Your task to perform on an android device: change alarm snooze length Image 0: 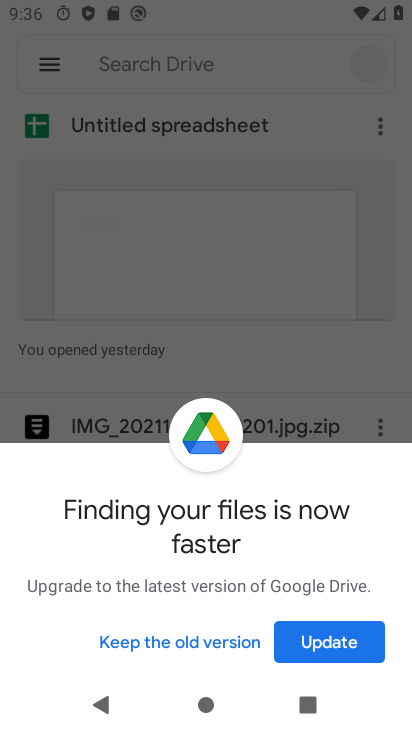
Step 0: press home button
Your task to perform on an android device: change alarm snooze length Image 1: 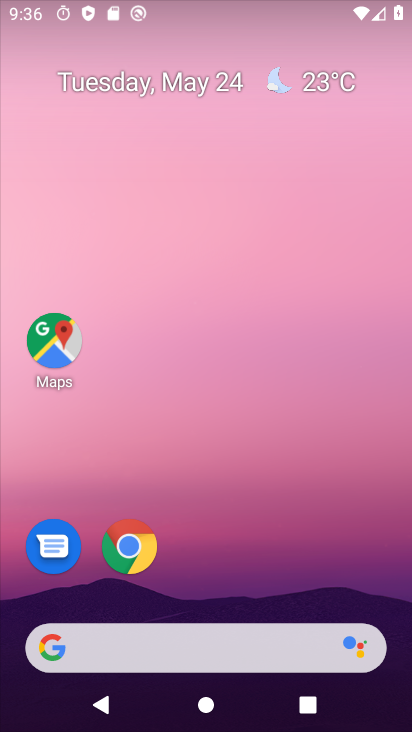
Step 1: drag from (220, 515) to (244, 79)
Your task to perform on an android device: change alarm snooze length Image 2: 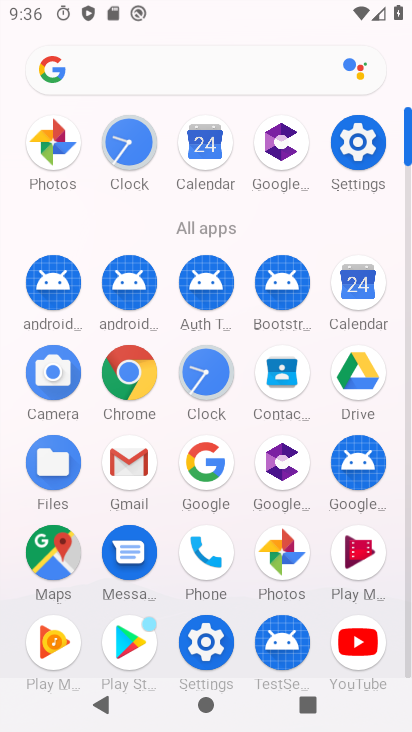
Step 2: click (205, 374)
Your task to perform on an android device: change alarm snooze length Image 3: 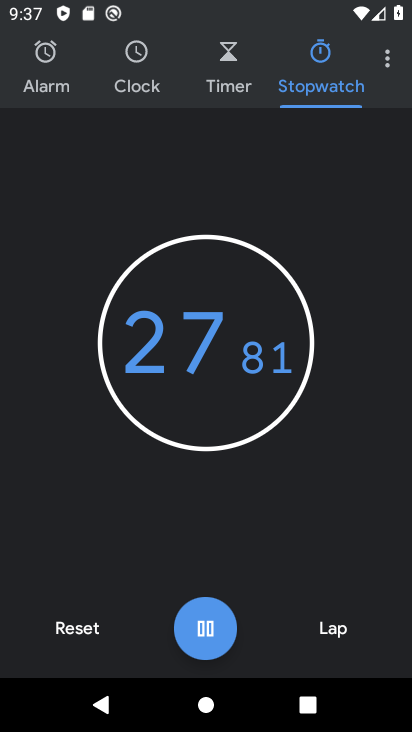
Step 3: click (382, 58)
Your task to perform on an android device: change alarm snooze length Image 4: 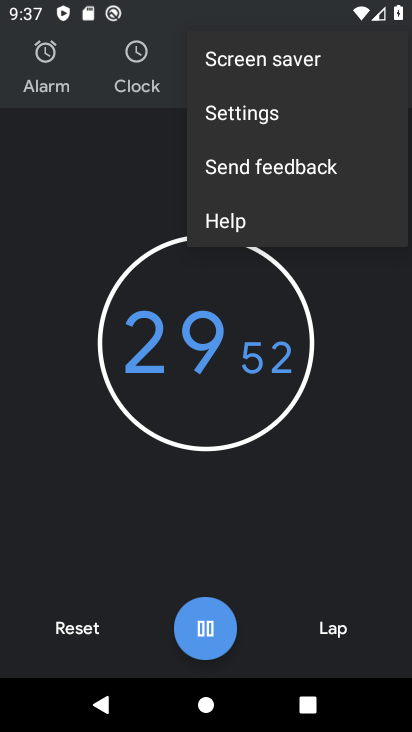
Step 4: click (282, 119)
Your task to perform on an android device: change alarm snooze length Image 5: 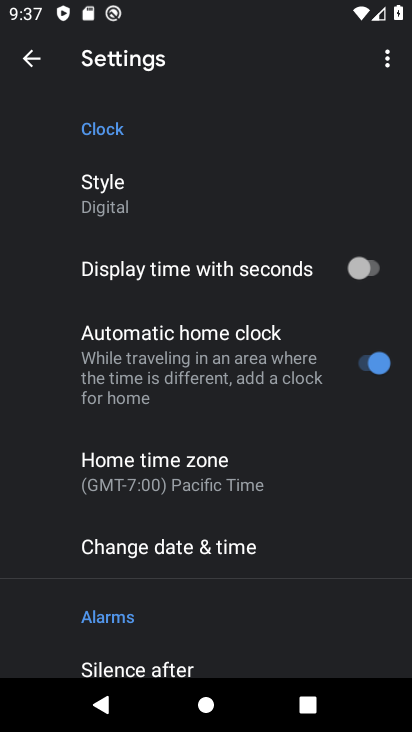
Step 5: drag from (231, 558) to (203, 167)
Your task to perform on an android device: change alarm snooze length Image 6: 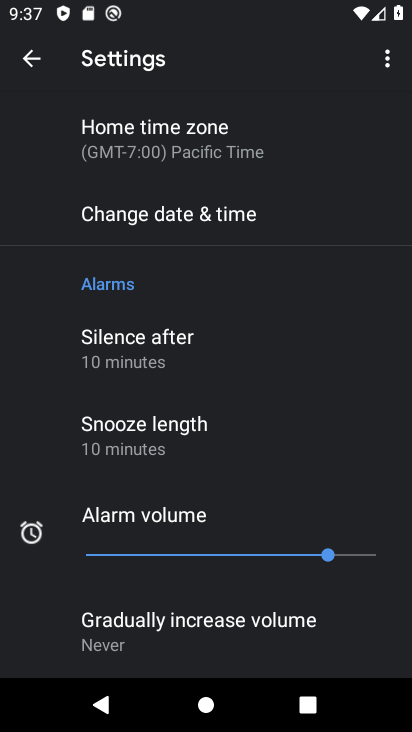
Step 6: click (177, 443)
Your task to perform on an android device: change alarm snooze length Image 7: 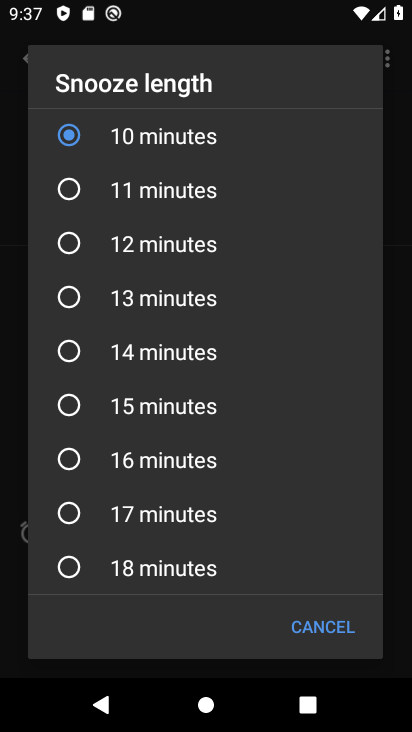
Step 7: click (68, 357)
Your task to perform on an android device: change alarm snooze length Image 8: 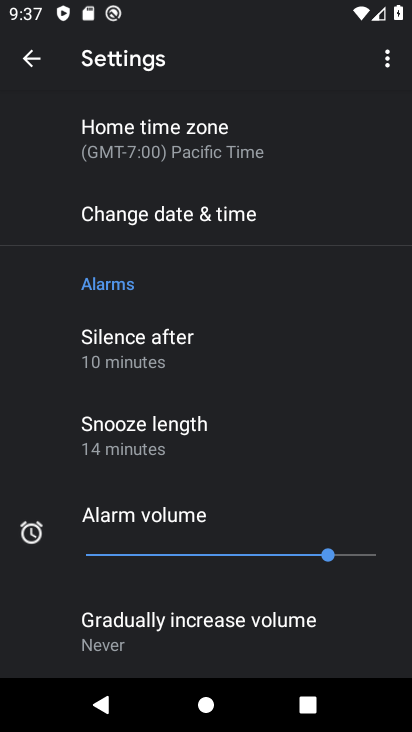
Step 8: task complete